Your task to perform on an android device: toggle pop-ups in chrome Image 0: 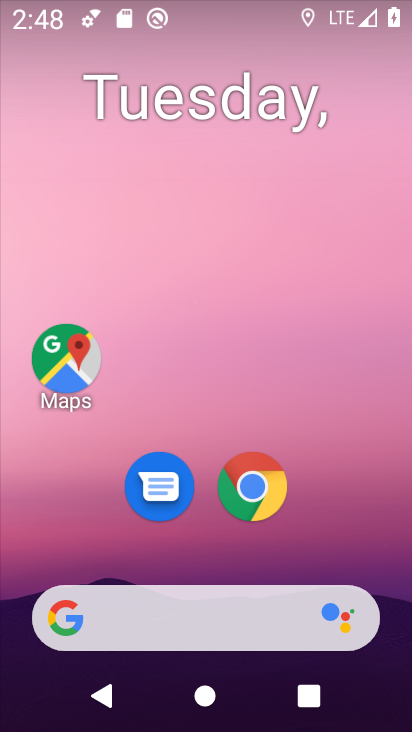
Step 0: drag from (368, 521) to (333, 81)
Your task to perform on an android device: toggle pop-ups in chrome Image 1: 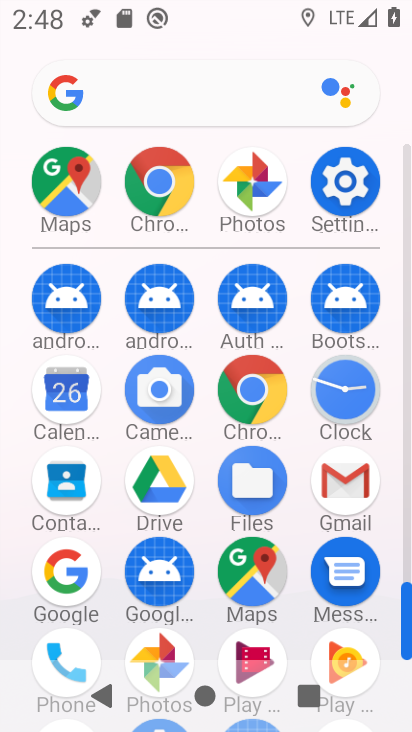
Step 1: click (268, 398)
Your task to perform on an android device: toggle pop-ups in chrome Image 2: 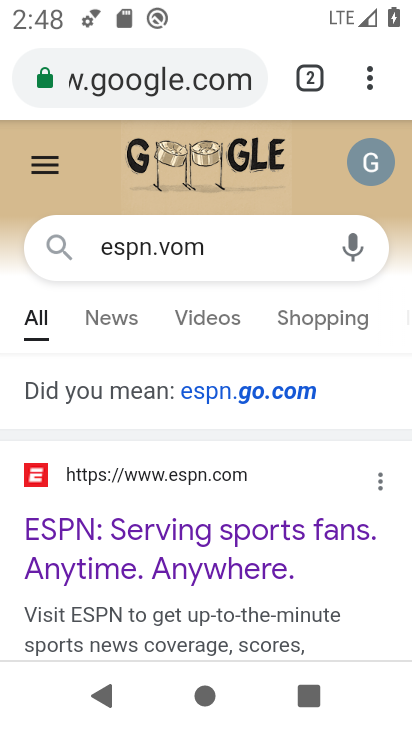
Step 2: click (369, 86)
Your task to perform on an android device: toggle pop-ups in chrome Image 3: 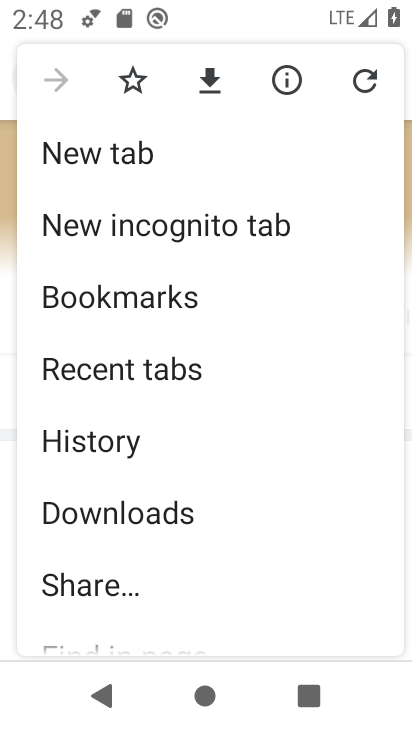
Step 3: drag from (306, 527) to (319, 410)
Your task to perform on an android device: toggle pop-ups in chrome Image 4: 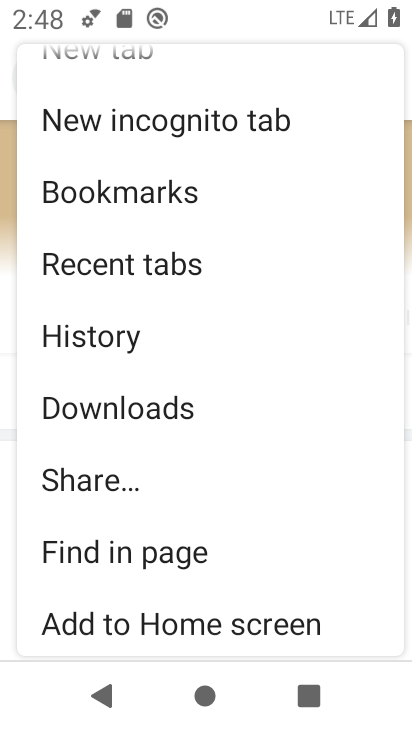
Step 4: drag from (308, 567) to (308, 421)
Your task to perform on an android device: toggle pop-ups in chrome Image 5: 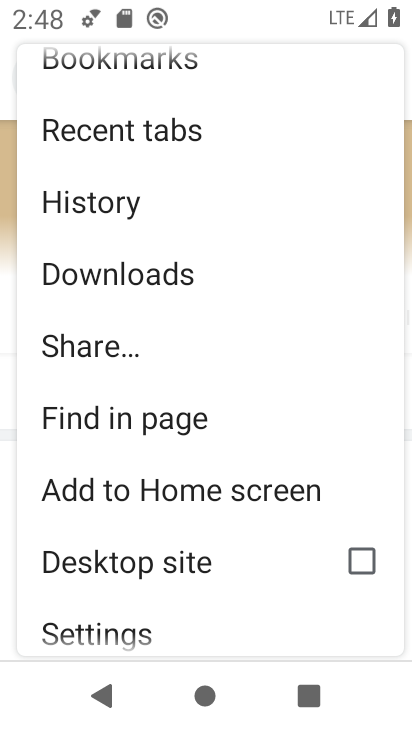
Step 5: drag from (296, 516) to (293, 427)
Your task to perform on an android device: toggle pop-ups in chrome Image 6: 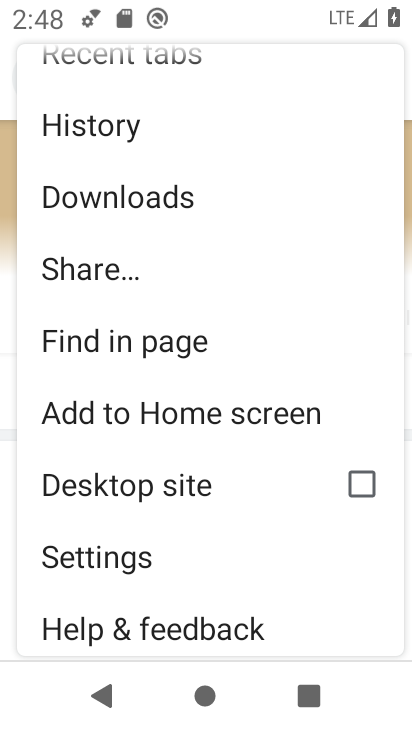
Step 6: drag from (248, 546) to (252, 423)
Your task to perform on an android device: toggle pop-ups in chrome Image 7: 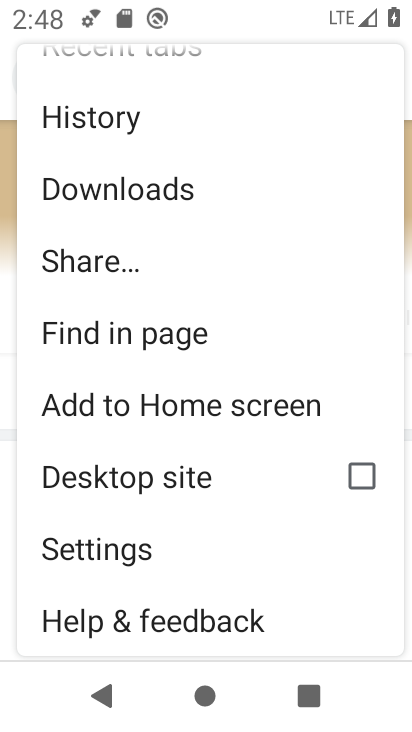
Step 7: click (174, 552)
Your task to perform on an android device: toggle pop-ups in chrome Image 8: 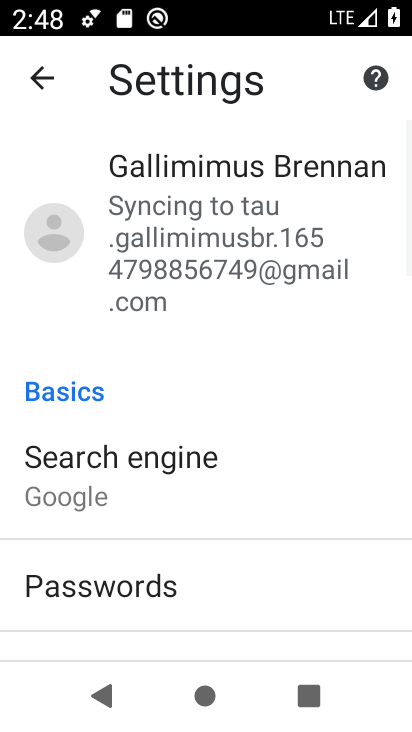
Step 8: drag from (289, 487) to (291, 412)
Your task to perform on an android device: toggle pop-ups in chrome Image 9: 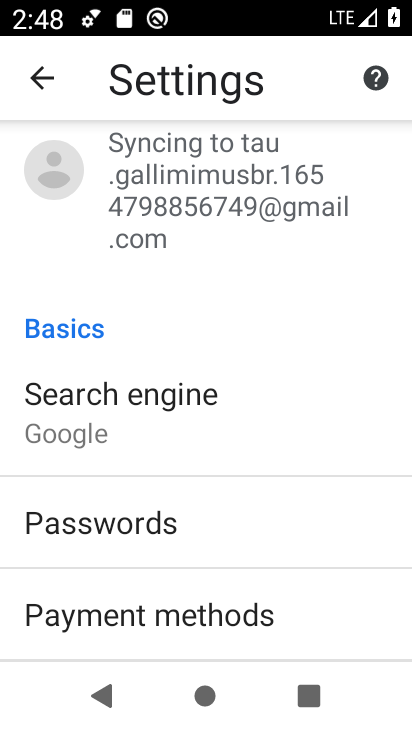
Step 9: drag from (280, 547) to (281, 473)
Your task to perform on an android device: toggle pop-ups in chrome Image 10: 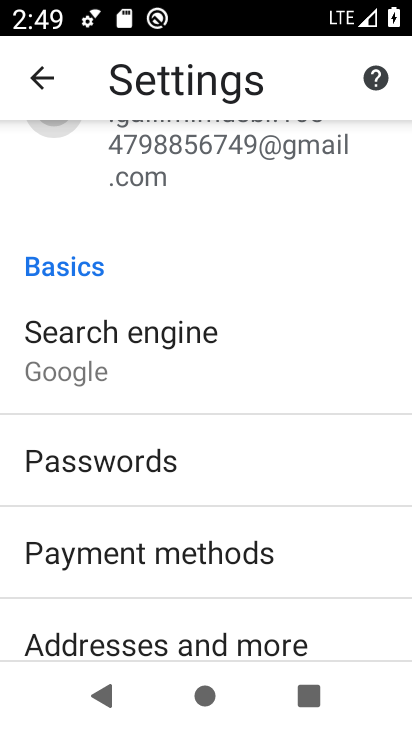
Step 10: drag from (269, 601) to (268, 491)
Your task to perform on an android device: toggle pop-ups in chrome Image 11: 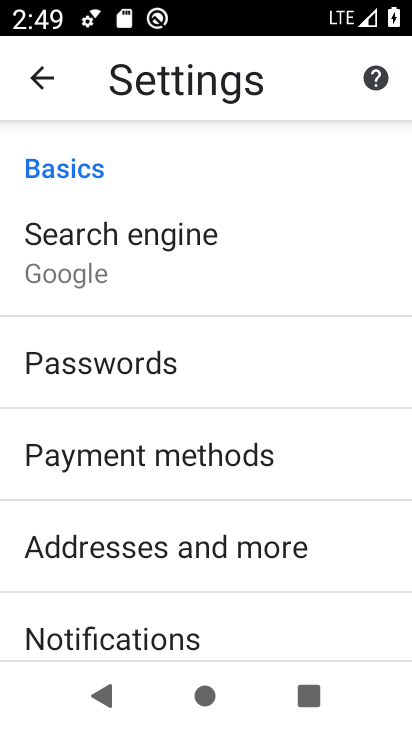
Step 11: drag from (317, 564) to (320, 447)
Your task to perform on an android device: toggle pop-ups in chrome Image 12: 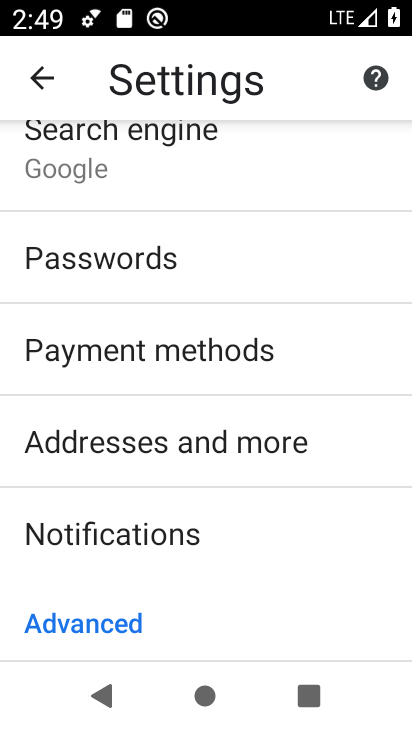
Step 12: drag from (336, 561) to (328, 472)
Your task to perform on an android device: toggle pop-ups in chrome Image 13: 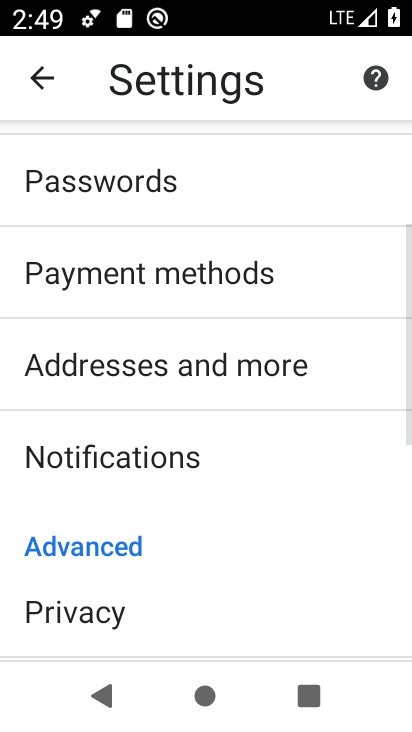
Step 13: drag from (287, 570) to (288, 454)
Your task to perform on an android device: toggle pop-ups in chrome Image 14: 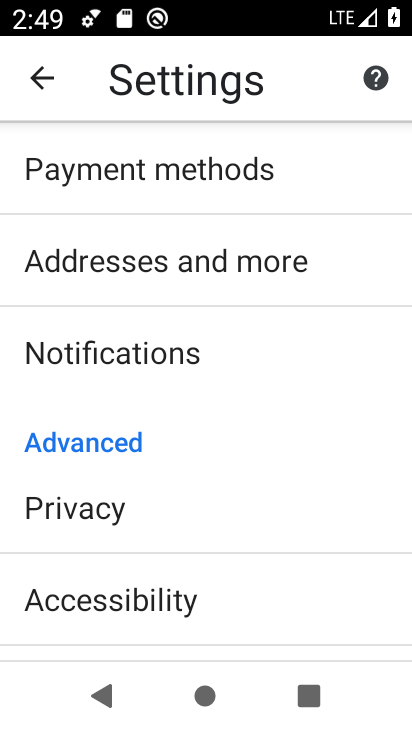
Step 14: drag from (304, 583) to (315, 472)
Your task to perform on an android device: toggle pop-ups in chrome Image 15: 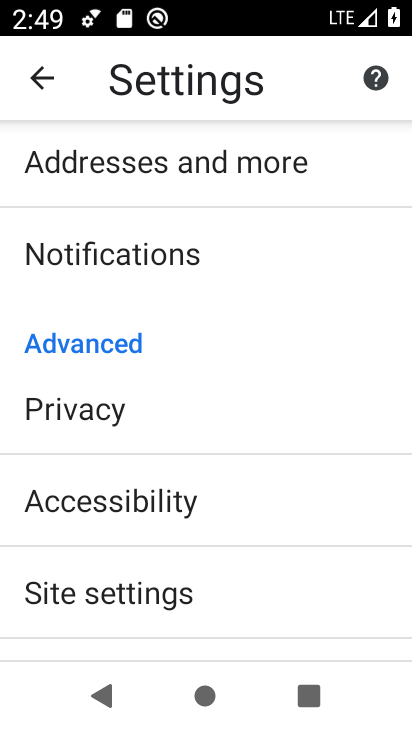
Step 15: drag from (290, 591) to (292, 441)
Your task to perform on an android device: toggle pop-ups in chrome Image 16: 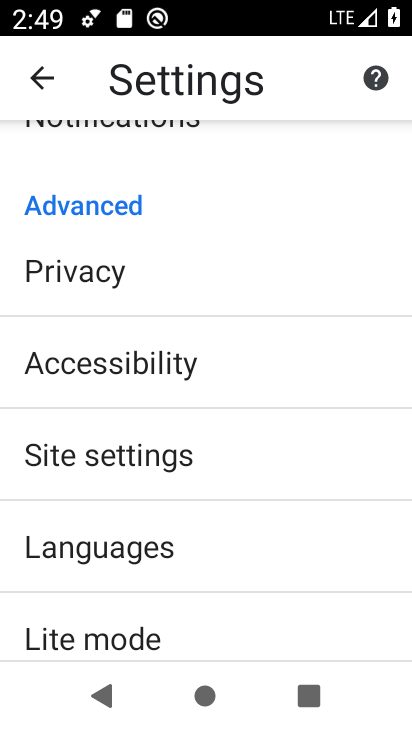
Step 16: drag from (263, 577) to (263, 466)
Your task to perform on an android device: toggle pop-ups in chrome Image 17: 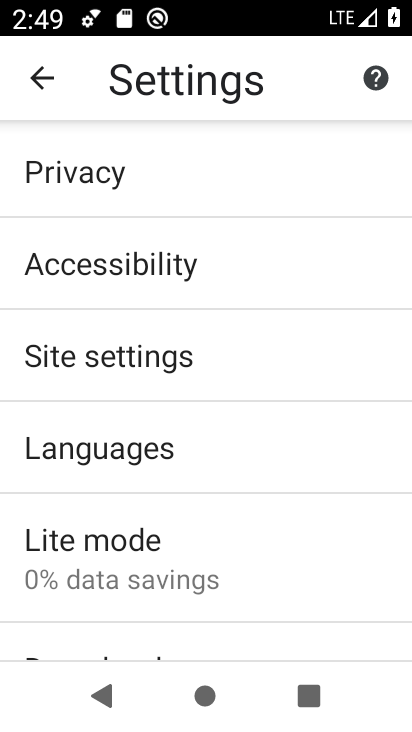
Step 17: click (225, 350)
Your task to perform on an android device: toggle pop-ups in chrome Image 18: 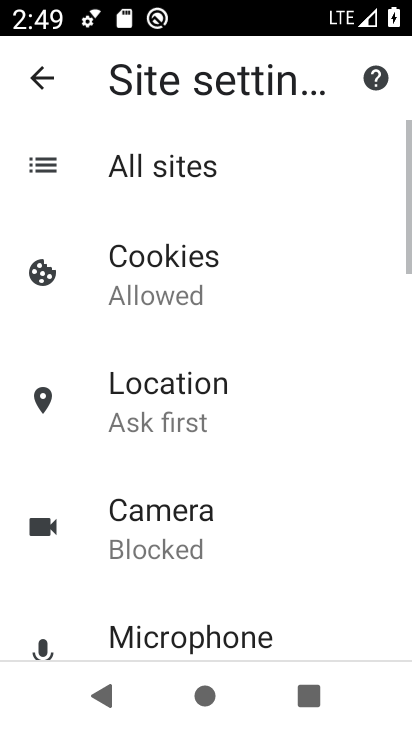
Step 18: drag from (297, 450) to (301, 361)
Your task to perform on an android device: toggle pop-ups in chrome Image 19: 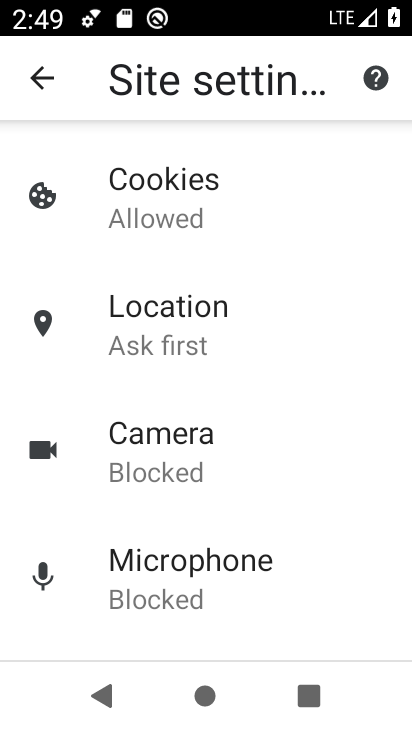
Step 19: drag from (318, 492) to (322, 388)
Your task to perform on an android device: toggle pop-ups in chrome Image 20: 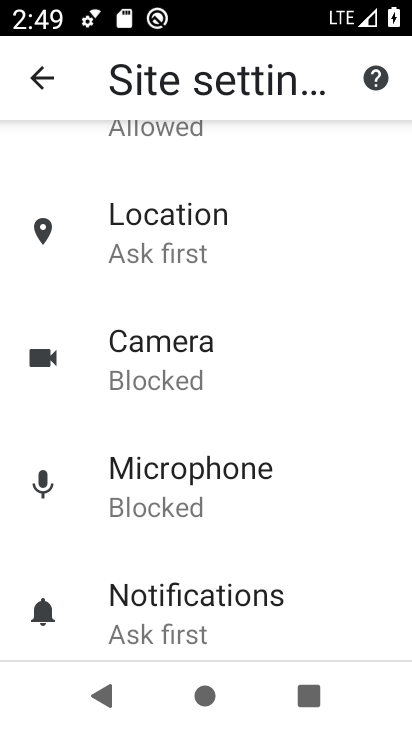
Step 20: drag from (319, 524) to (319, 408)
Your task to perform on an android device: toggle pop-ups in chrome Image 21: 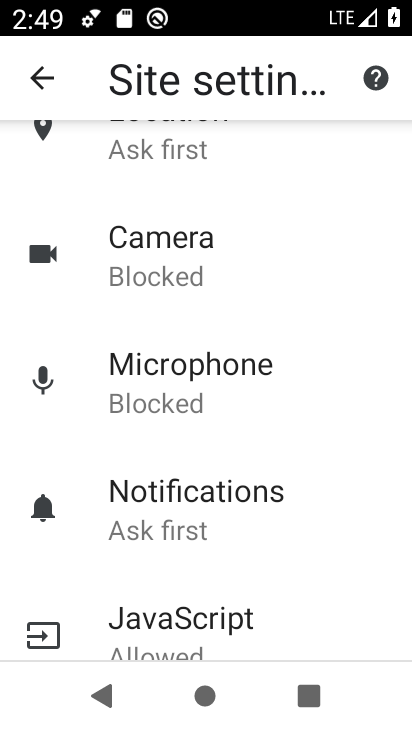
Step 21: drag from (319, 524) to (319, 402)
Your task to perform on an android device: toggle pop-ups in chrome Image 22: 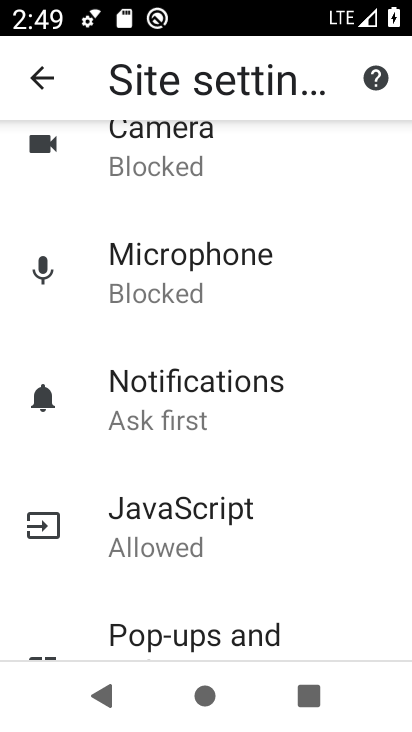
Step 22: drag from (327, 557) to (321, 420)
Your task to perform on an android device: toggle pop-ups in chrome Image 23: 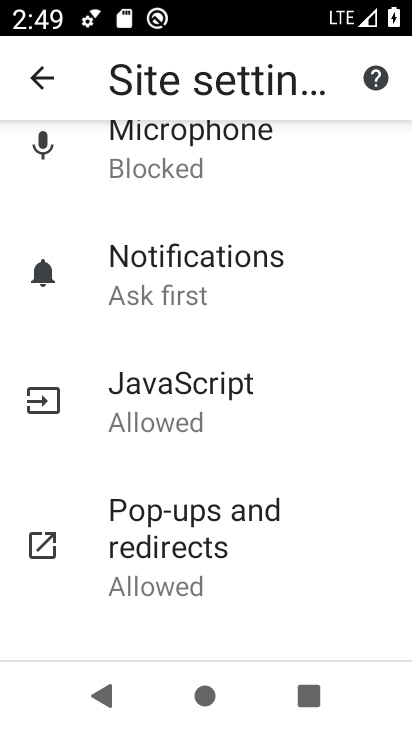
Step 23: drag from (308, 570) to (308, 478)
Your task to perform on an android device: toggle pop-ups in chrome Image 24: 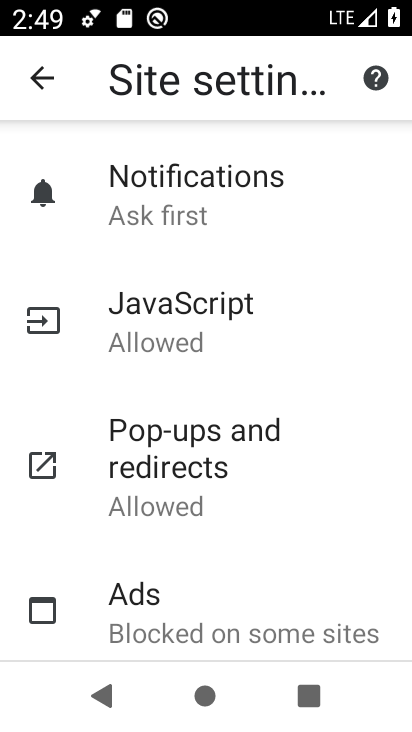
Step 24: click (308, 478)
Your task to perform on an android device: toggle pop-ups in chrome Image 25: 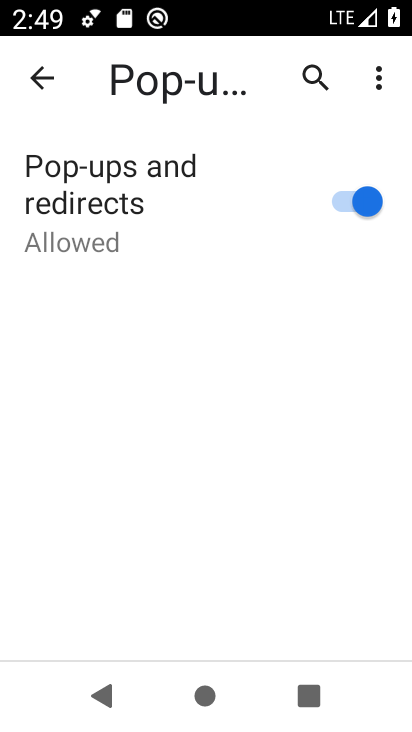
Step 25: click (357, 196)
Your task to perform on an android device: toggle pop-ups in chrome Image 26: 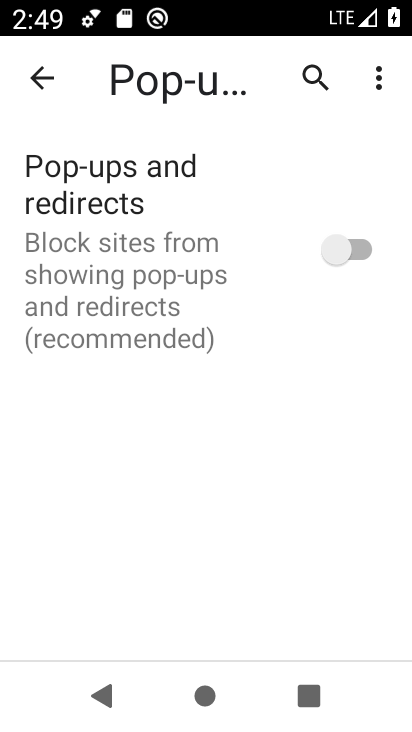
Step 26: task complete